Your task to perform on an android device: turn on javascript in the chrome app Image 0: 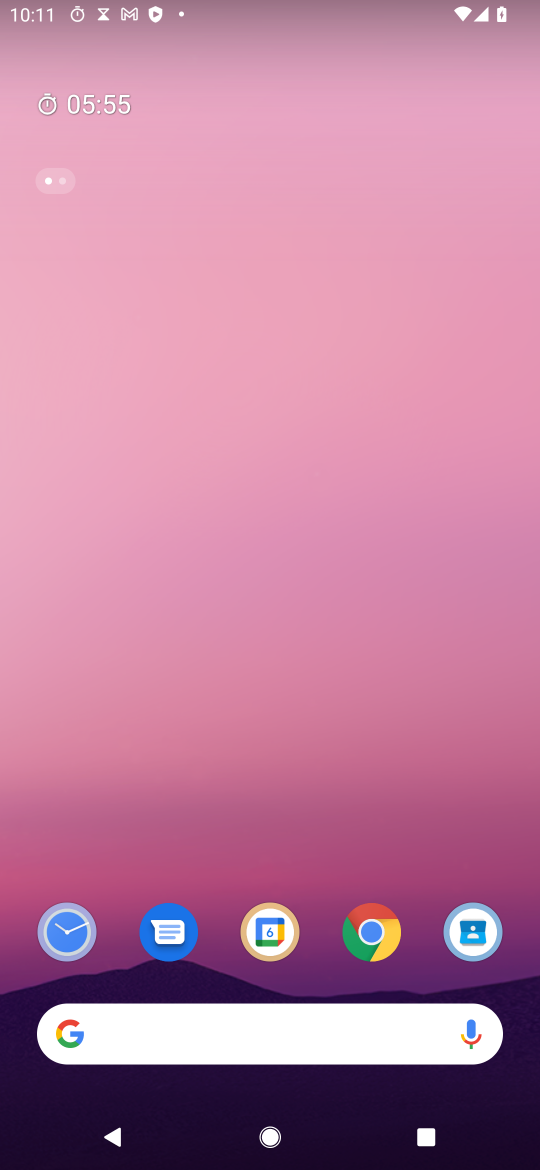
Step 0: drag from (346, 845) to (289, 358)
Your task to perform on an android device: turn on javascript in the chrome app Image 1: 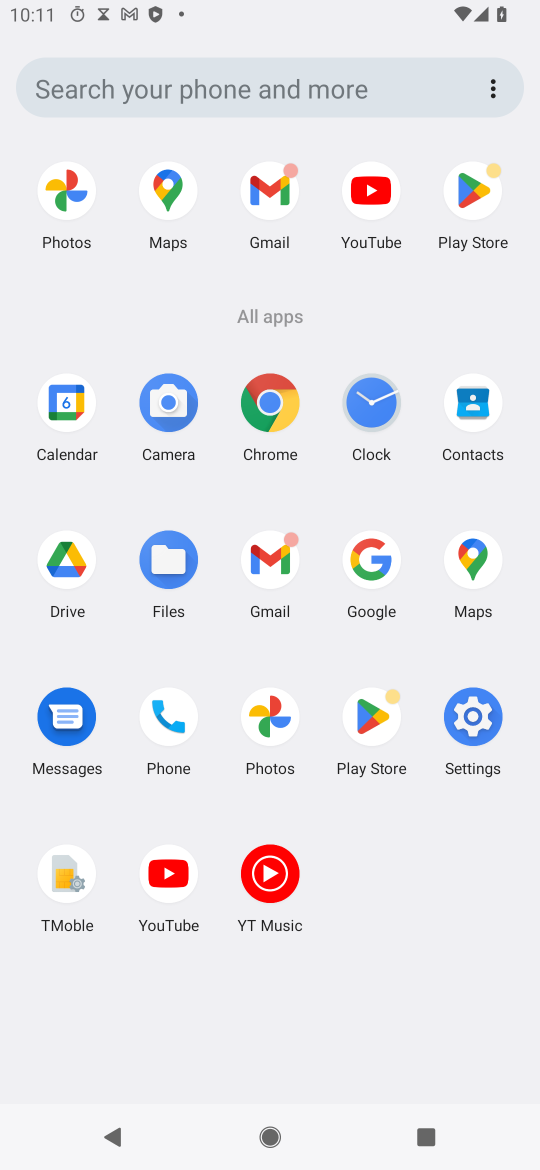
Step 1: click (260, 408)
Your task to perform on an android device: turn on javascript in the chrome app Image 2: 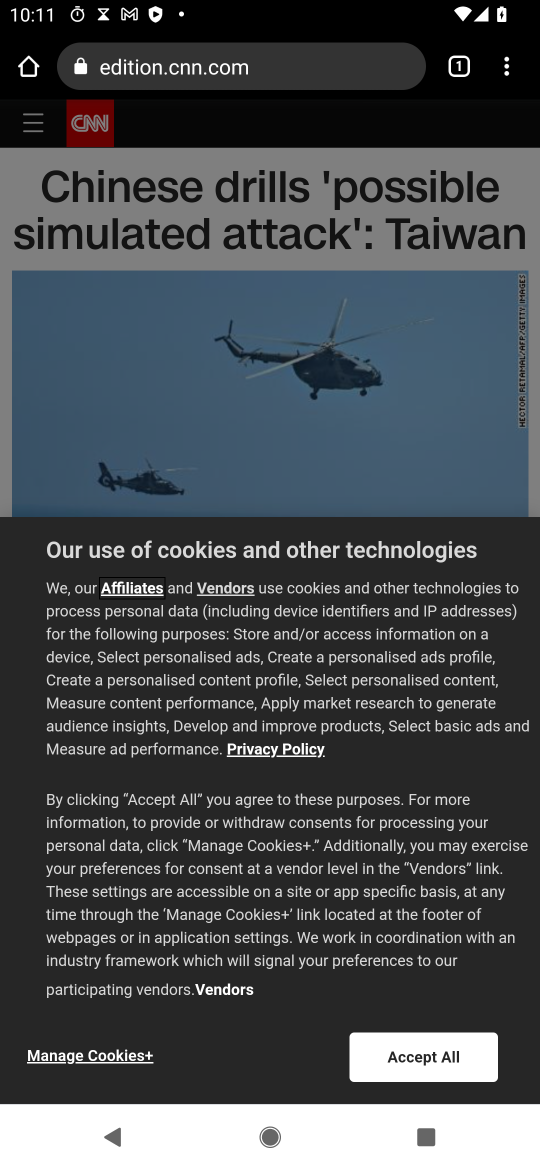
Step 2: click (511, 81)
Your task to perform on an android device: turn on javascript in the chrome app Image 3: 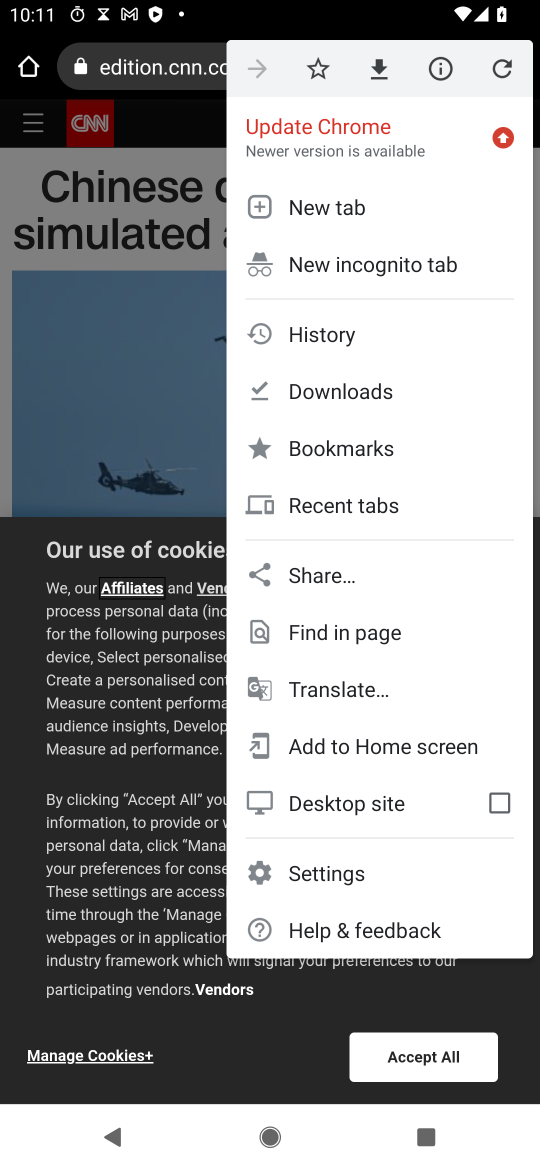
Step 3: click (374, 860)
Your task to perform on an android device: turn on javascript in the chrome app Image 4: 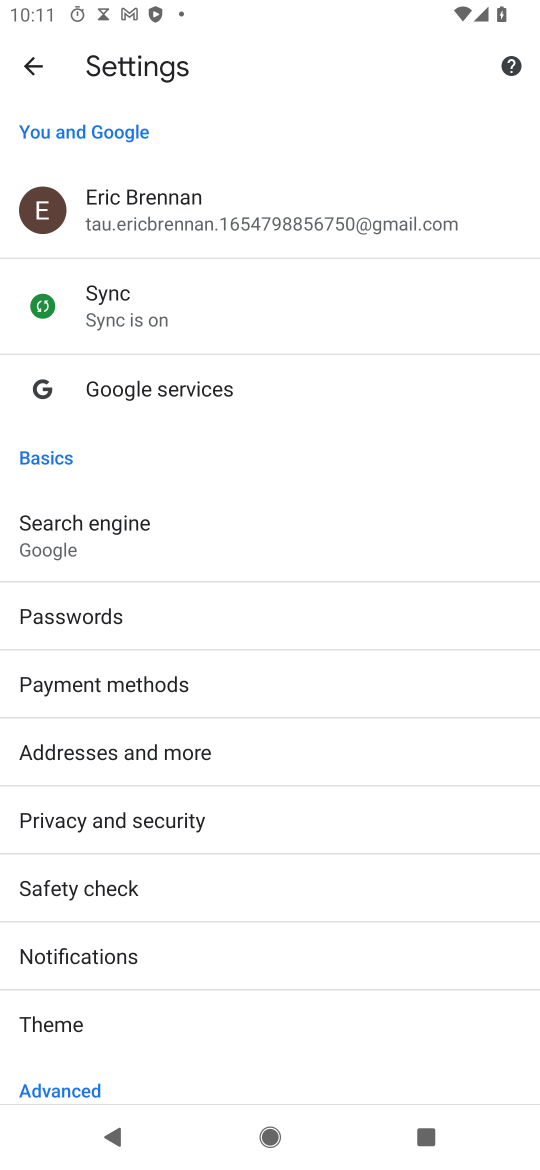
Step 4: drag from (234, 1052) to (120, 601)
Your task to perform on an android device: turn on javascript in the chrome app Image 5: 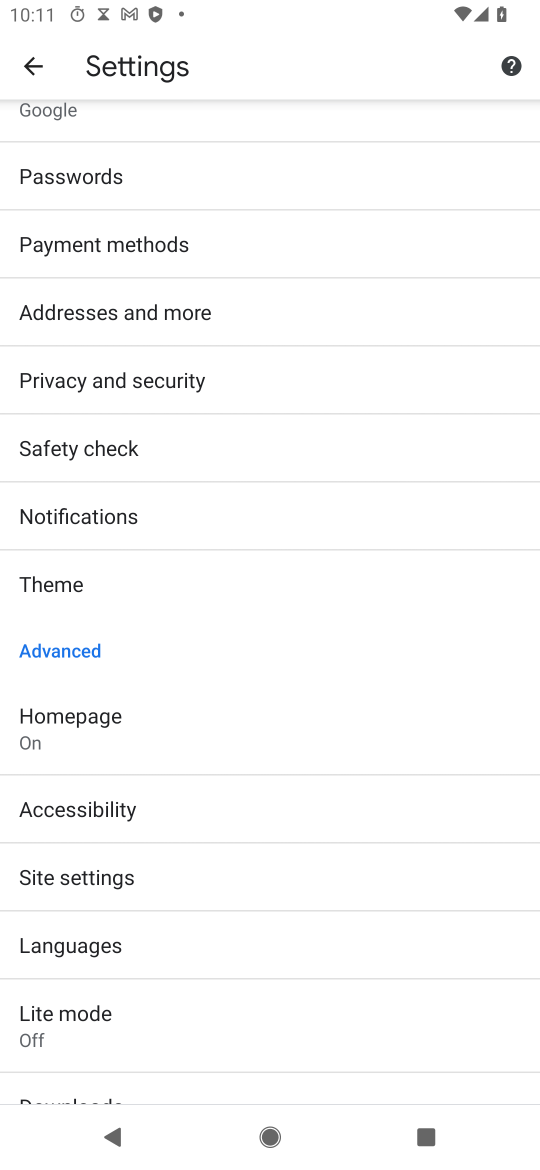
Step 5: click (190, 887)
Your task to perform on an android device: turn on javascript in the chrome app Image 6: 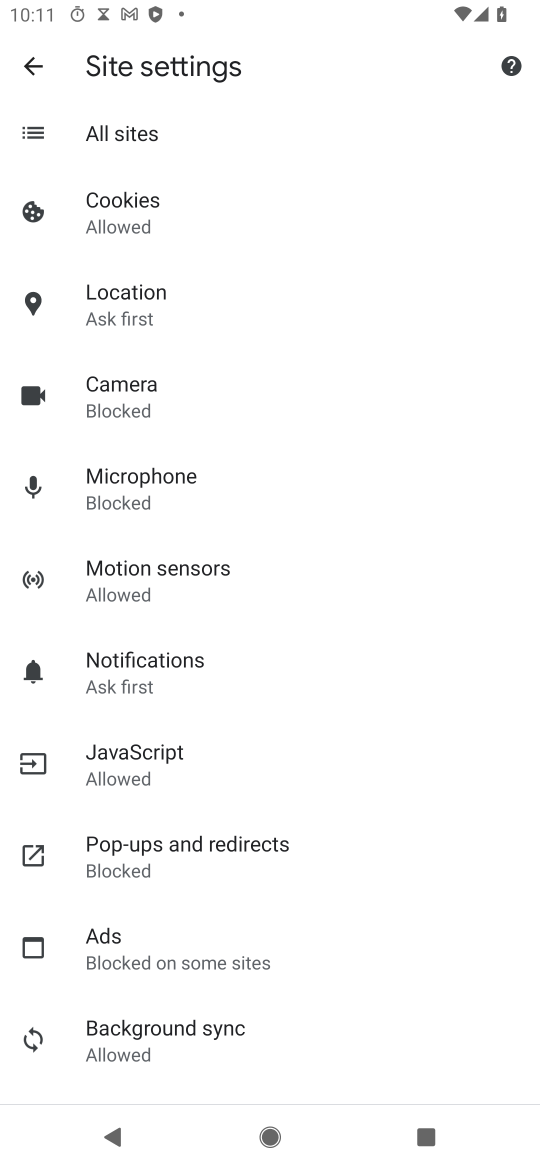
Step 6: click (225, 753)
Your task to perform on an android device: turn on javascript in the chrome app Image 7: 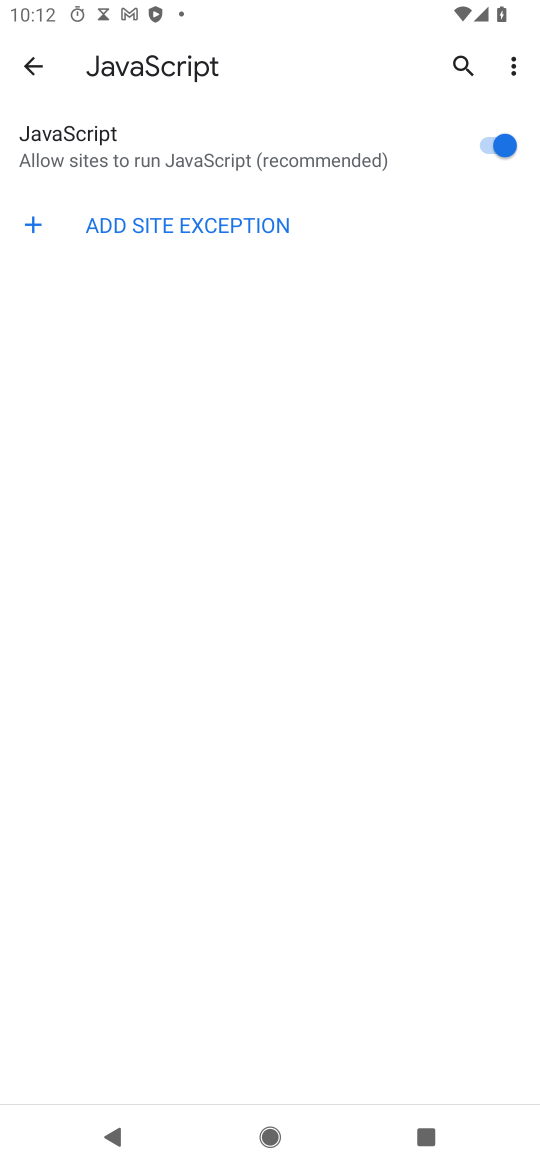
Step 7: task complete